Your task to perform on an android device: turn on airplane mode Image 0: 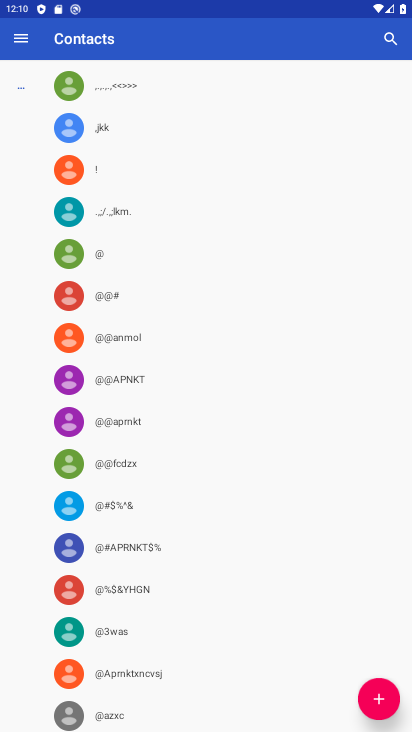
Step 0: press home button
Your task to perform on an android device: turn on airplane mode Image 1: 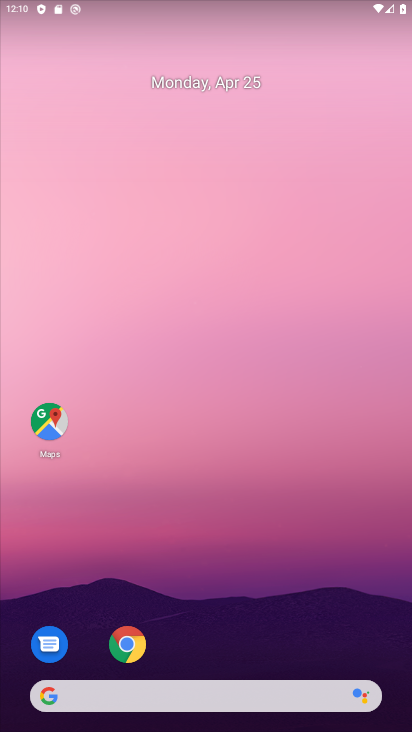
Step 1: drag from (236, 578) to (164, 104)
Your task to perform on an android device: turn on airplane mode Image 2: 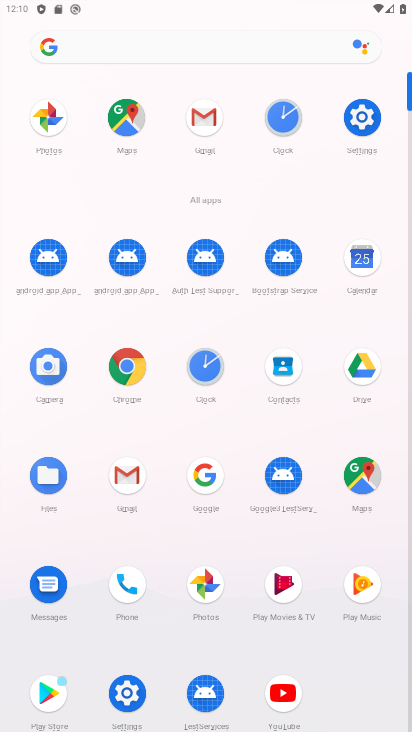
Step 2: click (359, 134)
Your task to perform on an android device: turn on airplane mode Image 3: 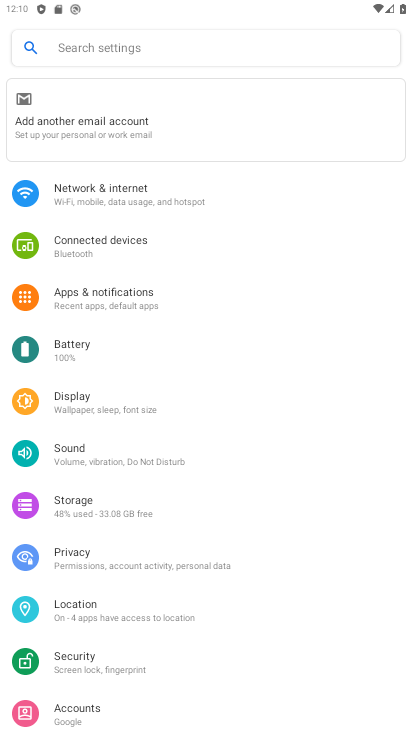
Step 3: click (138, 212)
Your task to perform on an android device: turn on airplane mode Image 4: 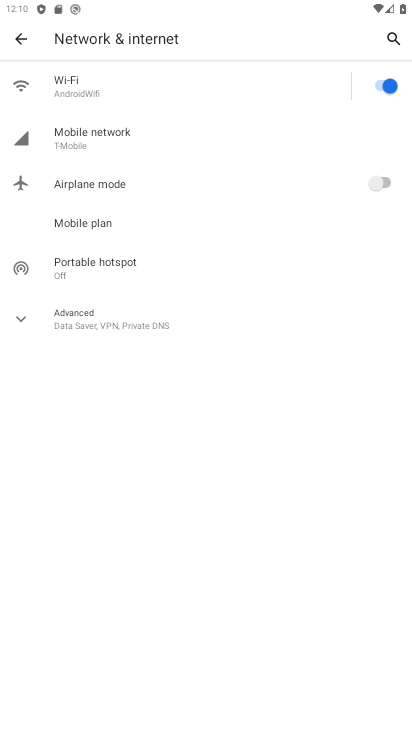
Step 4: click (365, 189)
Your task to perform on an android device: turn on airplane mode Image 5: 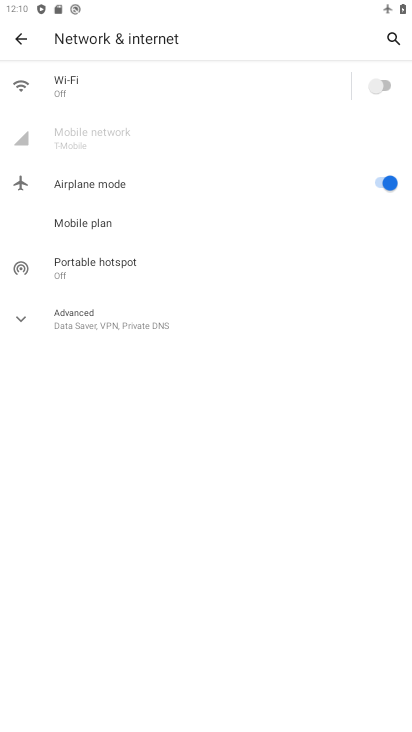
Step 5: task complete